Your task to perform on an android device: Open Google Chrome and open the bookmarks view Image 0: 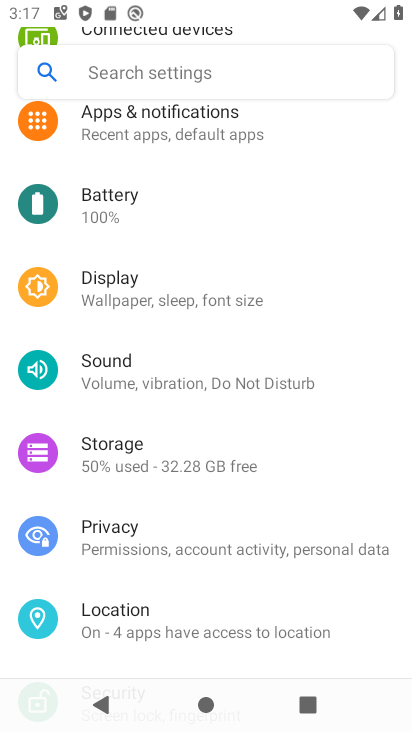
Step 0: press home button
Your task to perform on an android device: Open Google Chrome and open the bookmarks view Image 1: 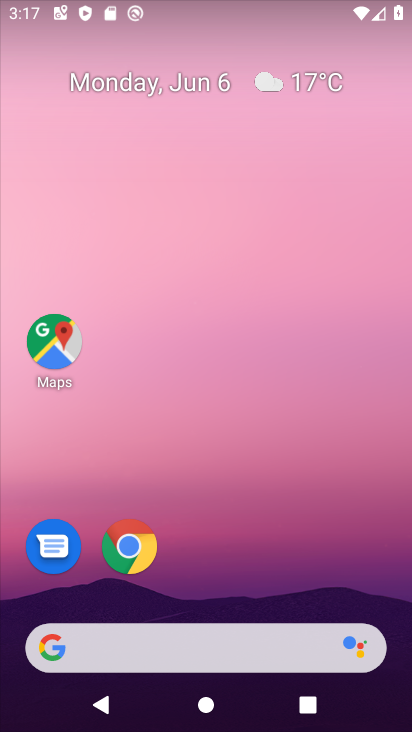
Step 1: click (151, 551)
Your task to perform on an android device: Open Google Chrome and open the bookmarks view Image 2: 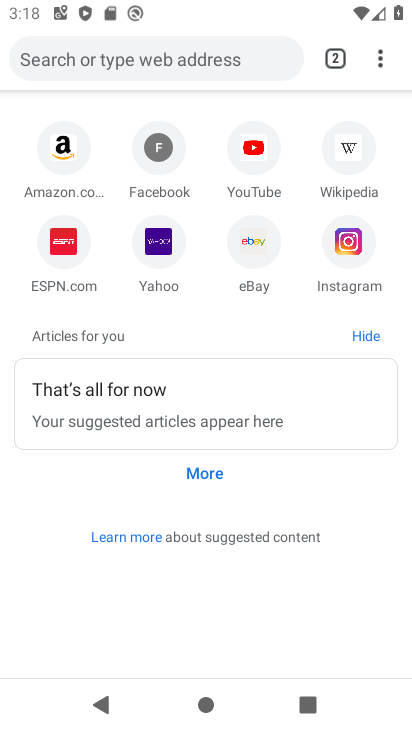
Step 2: click (387, 60)
Your task to perform on an android device: Open Google Chrome and open the bookmarks view Image 3: 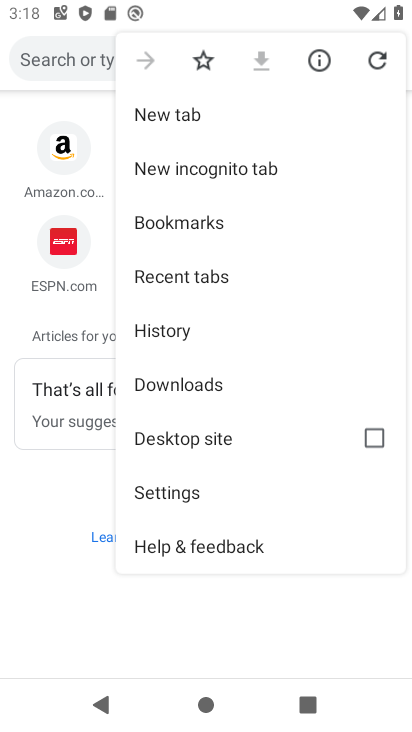
Step 3: click (212, 235)
Your task to perform on an android device: Open Google Chrome and open the bookmarks view Image 4: 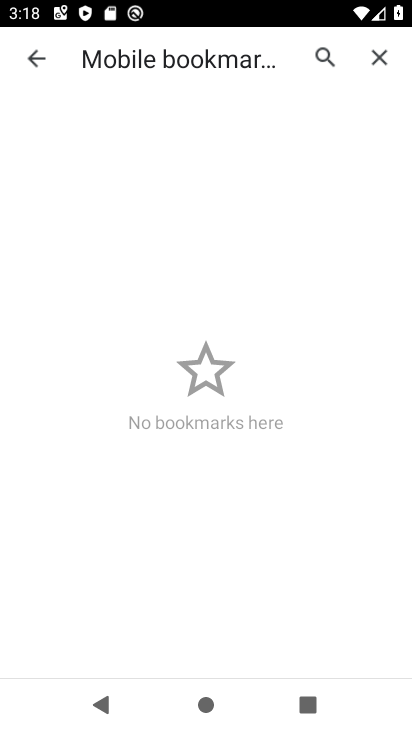
Step 4: task complete